Your task to perform on an android device: turn off sleep mode Image 0: 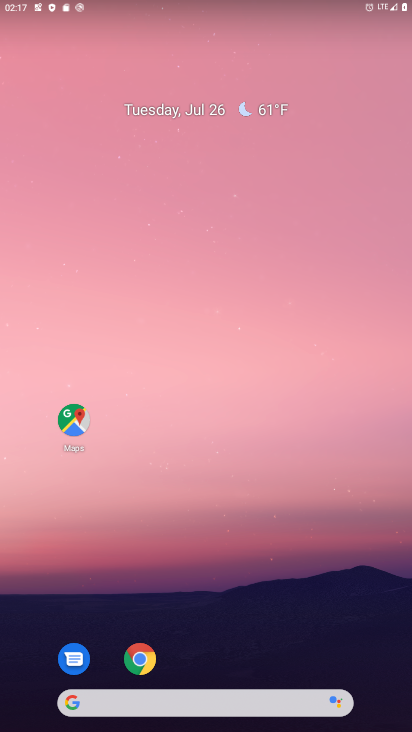
Step 0: drag from (265, 642) to (265, 121)
Your task to perform on an android device: turn off sleep mode Image 1: 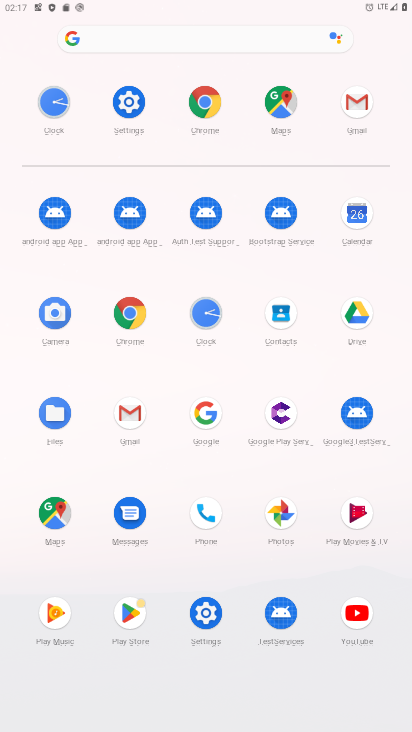
Step 1: click (117, 104)
Your task to perform on an android device: turn off sleep mode Image 2: 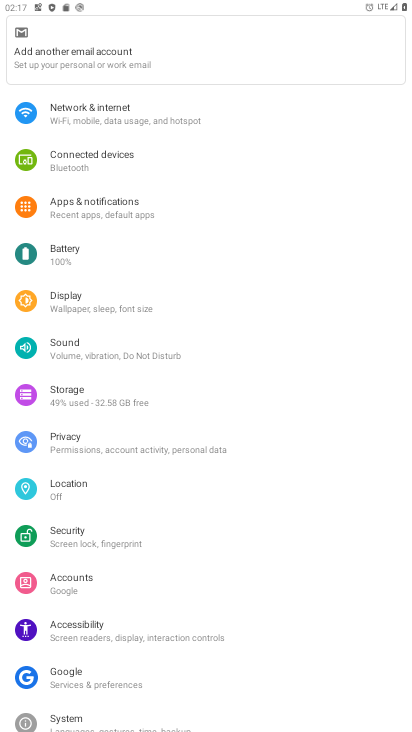
Step 2: click (110, 311)
Your task to perform on an android device: turn off sleep mode Image 3: 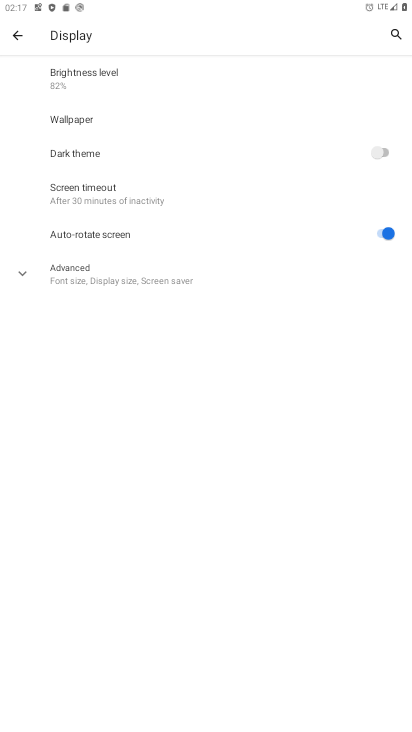
Step 3: click (123, 199)
Your task to perform on an android device: turn off sleep mode Image 4: 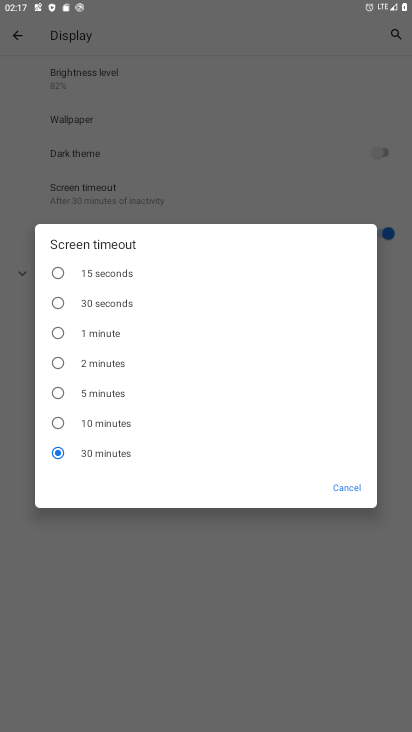
Step 4: task complete